Your task to perform on an android device: Where can I buy a nice beach umbrella? Image 0: 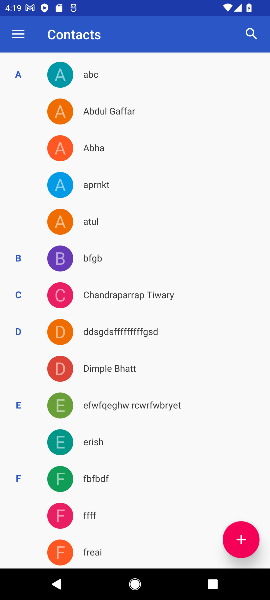
Step 0: press home button
Your task to perform on an android device: Where can I buy a nice beach umbrella? Image 1: 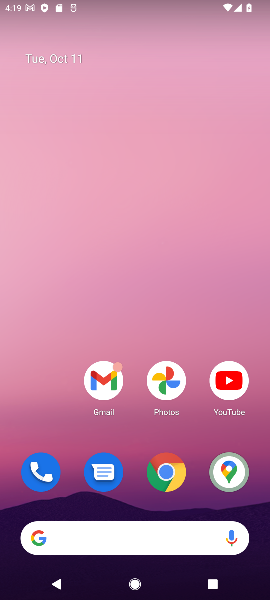
Step 1: click (154, 526)
Your task to perform on an android device: Where can I buy a nice beach umbrella? Image 2: 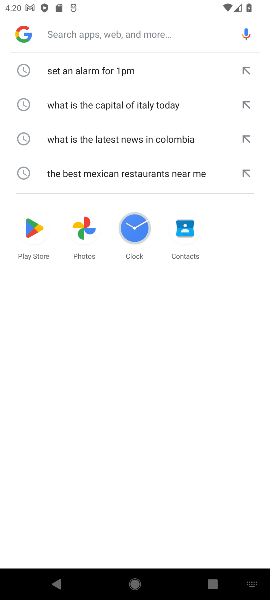
Step 2: type "Where can I buy a nice beach umbrella?"
Your task to perform on an android device: Where can I buy a nice beach umbrella? Image 3: 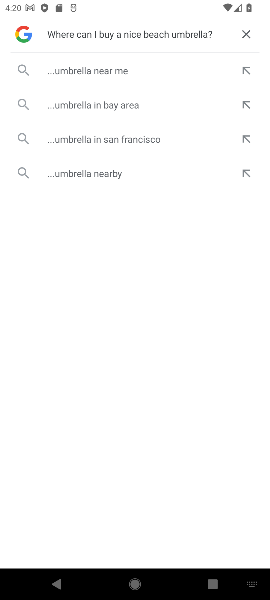
Step 3: click (126, 78)
Your task to perform on an android device: Where can I buy a nice beach umbrella? Image 4: 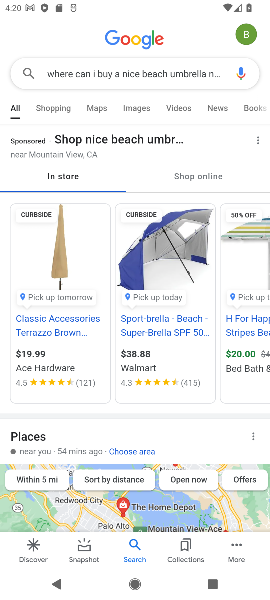
Step 4: task complete